Your task to perform on an android device: change your default location settings in chrome Image 0: 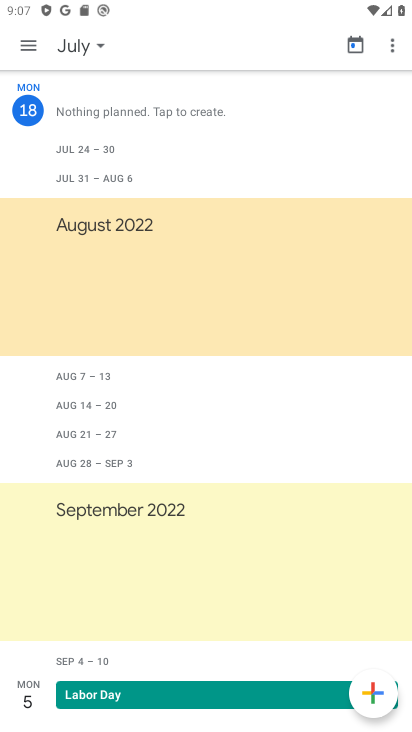
Step 0: press home button
Your task to perform on an android device: change your default location settings in chrome Image 1: 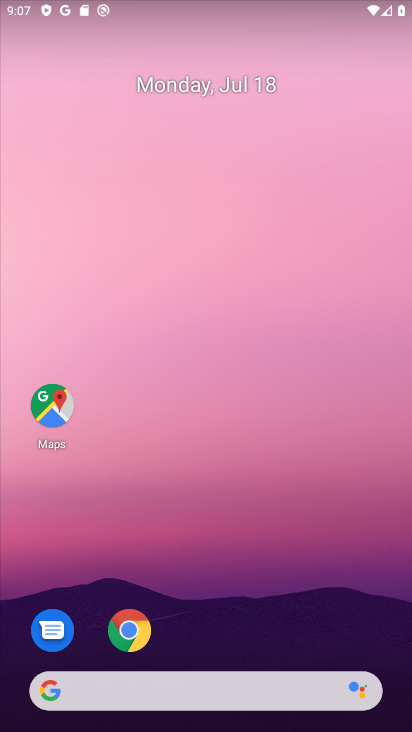
Step 1: drag from (383, 668) to (200, 163)
Your task to perform on an android device: change your default location settings in chrome Image 2: 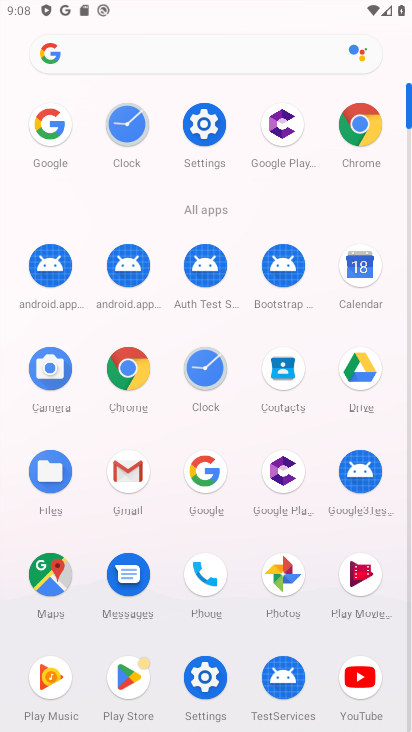
Step 2: click (117, 386)
Your task to perform on an android device: change your default location settings in chrome Image 3: 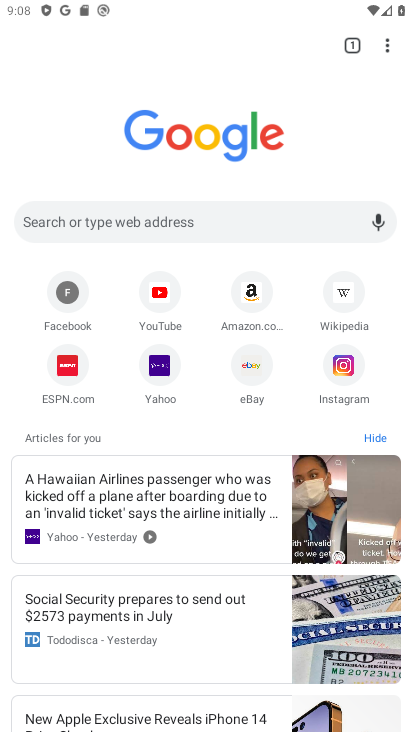
Step 3: click (390, 43)
Your task to perform on an android device: change your default location settings in chrome Image 4: 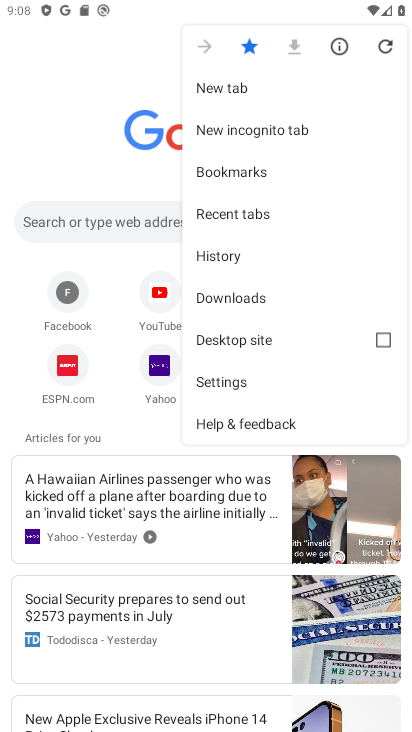
Step 4: click (216, 375)
Your task to perform on an android device: change your default location settings in chrome Image 5: 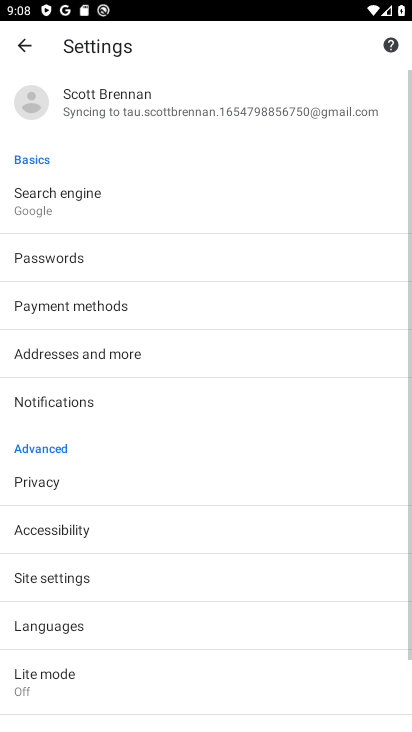
Step 5: click (90, 203)
Your task to perform on an android device: change your default location settings in chrome Image 6: 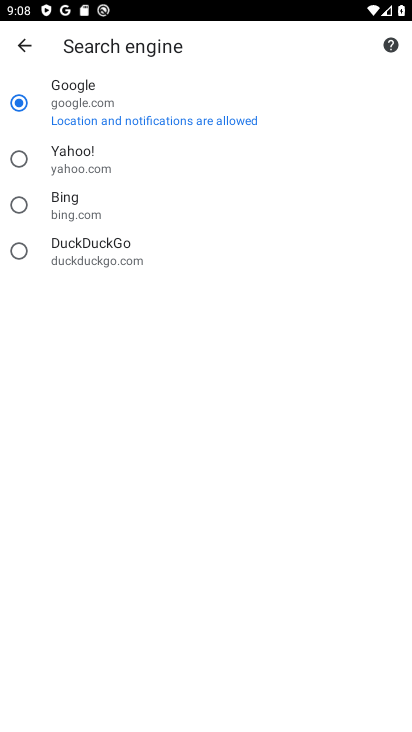
Step 6: click (90, 205)
Your task to perform on an android device: change your default location settings in chrome Image 7: 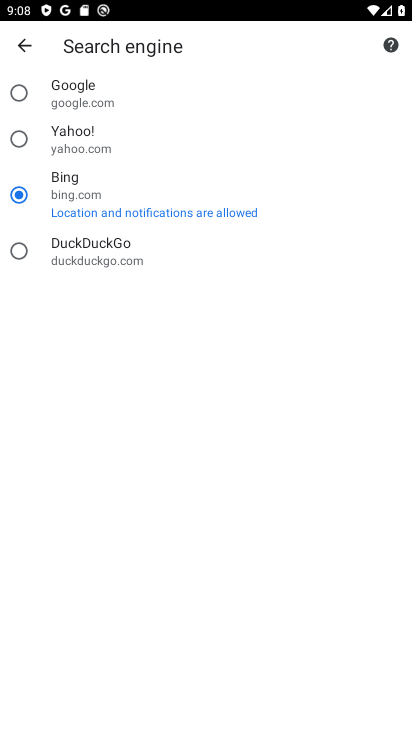
Step 7: task complete